Your task to perform on an android device: see tabs open on other devices in the chrome app Image 0: 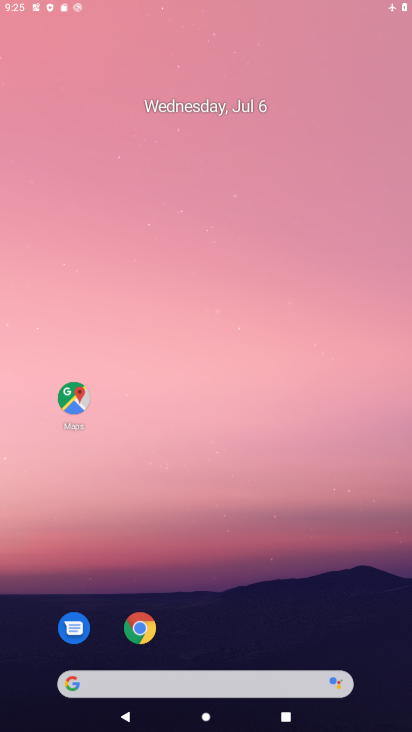
Step 0: click (271, 103)
Your task to perform on an android device: see tabs open on other devices in the chrome app Image 1: 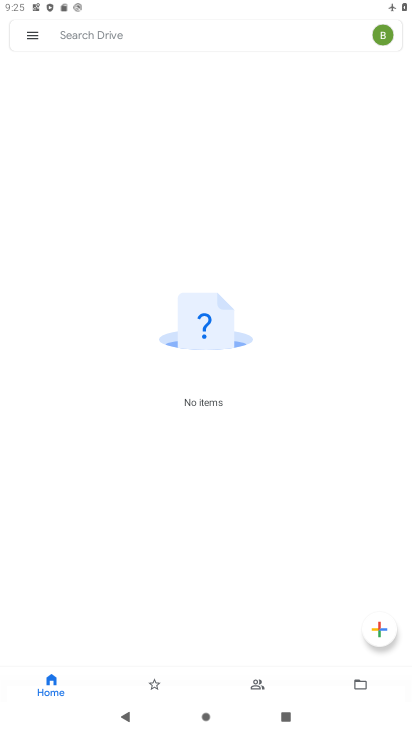
Step 1: press home button
Your task to perform on an android device: see tabs open on other devices in the chrome app Image 2: 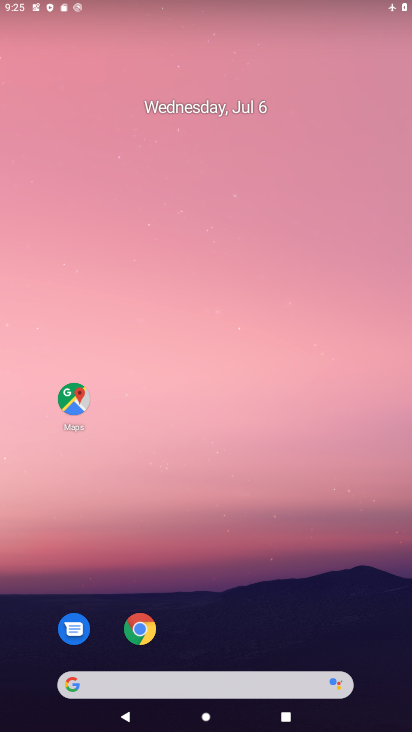
Step 2: drag from (198, 646) to (219, 137)
Your task to perform on an android device: see tabs open on other devices in the chrome app Image 3: 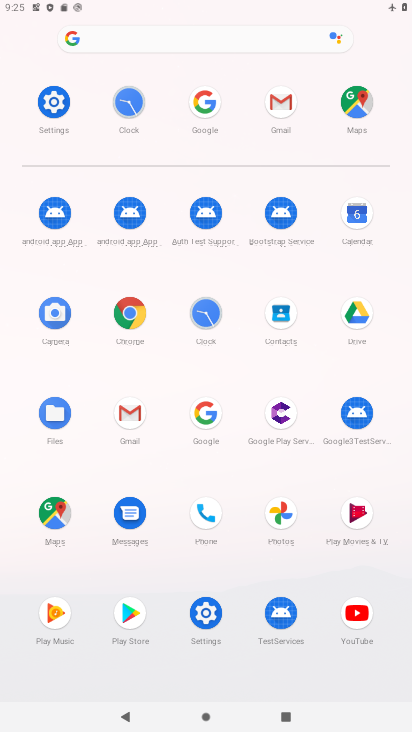
Step 3: click (133, 311)
Your task to perform on an android device: see tabs open on other devices in the chrome app Image 4: 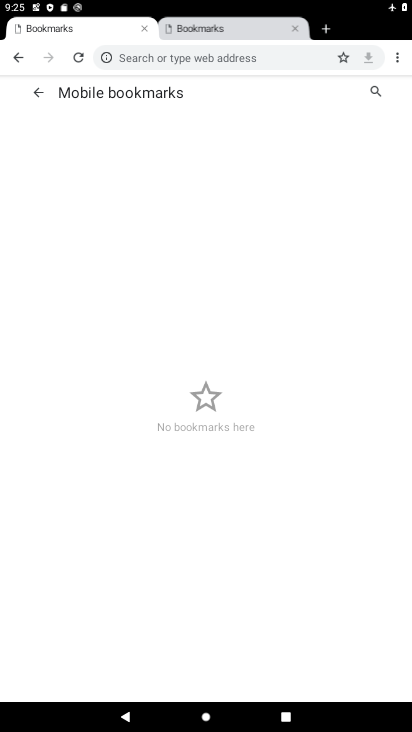
Step 4: click (393, 56)
Your task to perform on an android device: see tabs open on other devices in the chrome app Image 5: 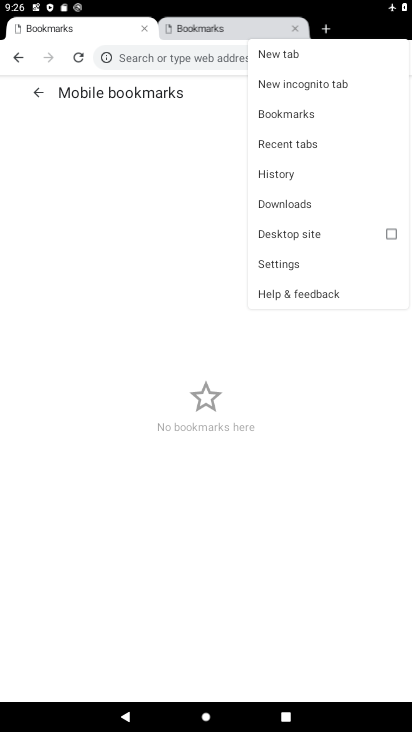
Step 5: click (295, 145)
Your task to perform on an android device: see tabs open on other devices in the chrome app Image 6: 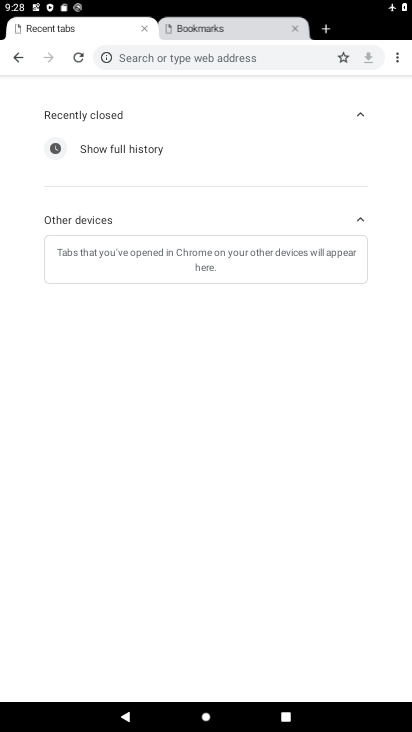
Step 6: task complete